Your task to perform on an android device: Open Google Chrome and click the shortcut for Amazon.com Image 0: 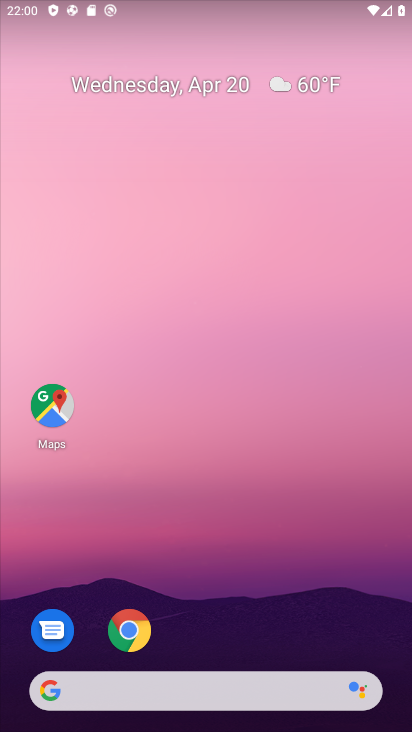
Step 0: click (121, 625)
Your task to perform on an android device: Open Google Chrome and click the shortcut for Amazon.com Image 1: 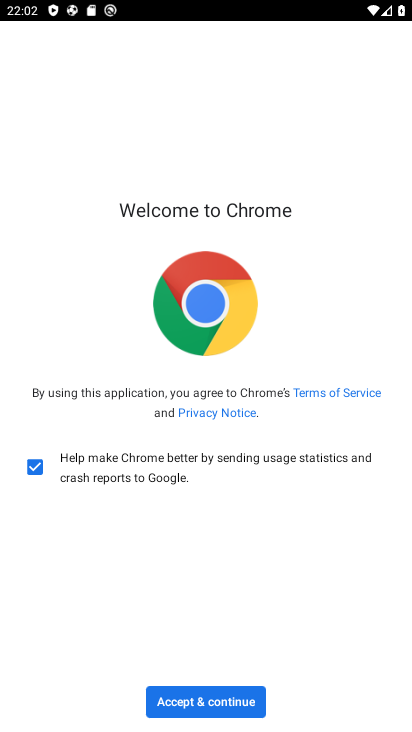
Step 1: click (200, 696)
Your task to perform on an android device: Open Google Chrome and click the shortcut for Amazon.com Image 2: 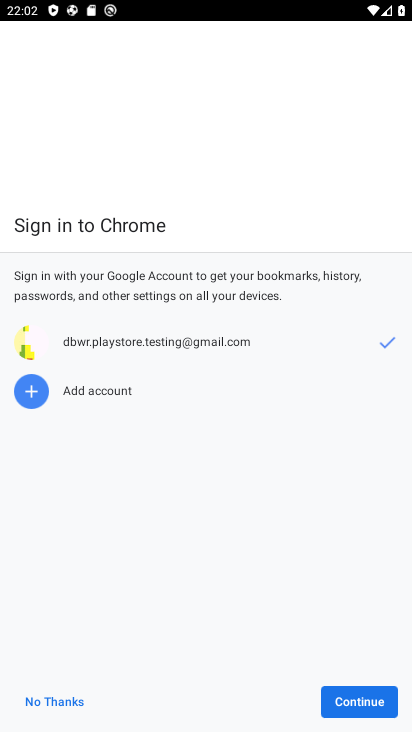
Step 2: click (332, 702)
Your task to perform on an android device: Open Google Chrome and click the shortcut for Amazon.com Image 3: 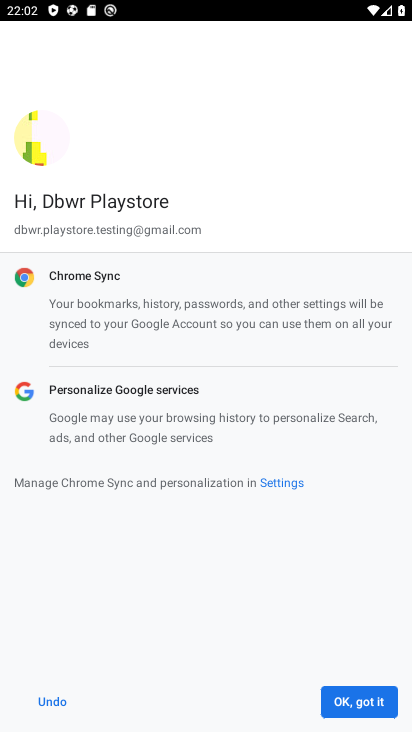
Step 3: click (332, 702)
Your task to perform on an android device: Open Google Chrome and click the shortcut for Amazon.com Image 4: 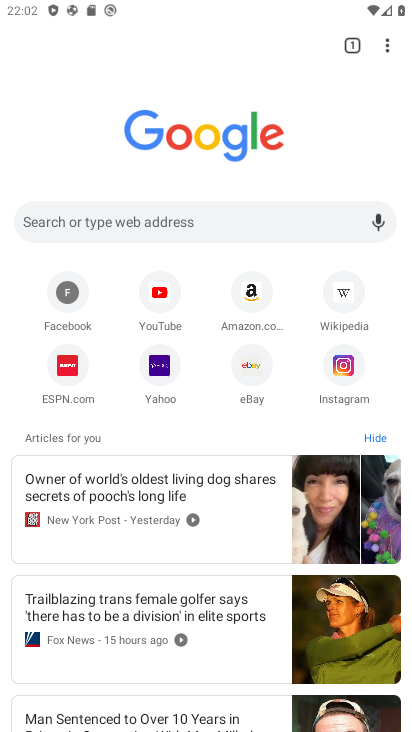
Step 4: click (261, 300)
Your task to perform on an android device: Open Google Chrome and click the shortcut for Amazon.com Image 5: 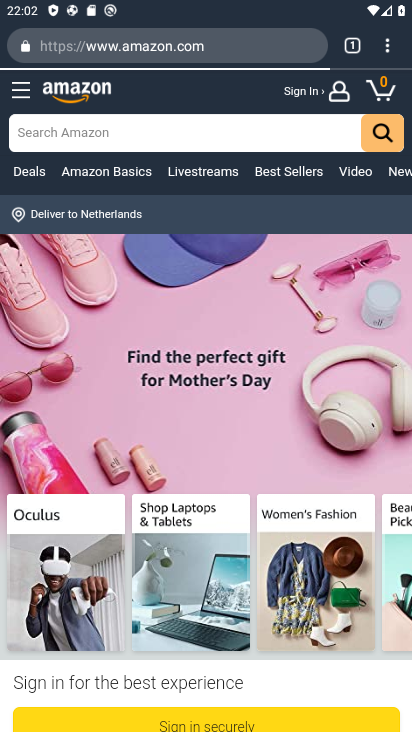
Step 5: task complete